Your task to perform on an android device: What's the weather? Image 0: 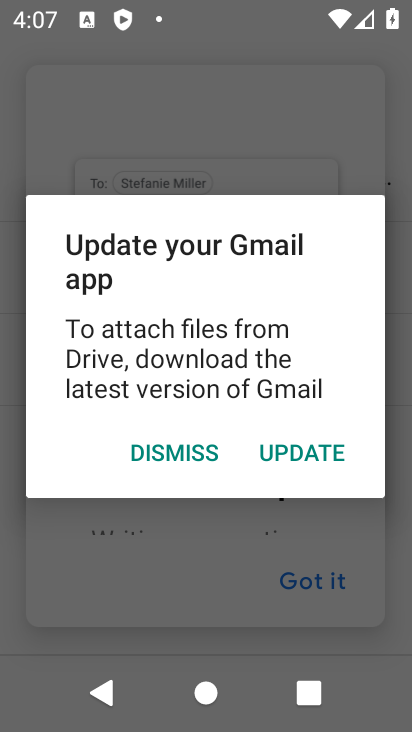
Step 0: press home button
Your task to perform on an android device: What's the weather? Image 1: 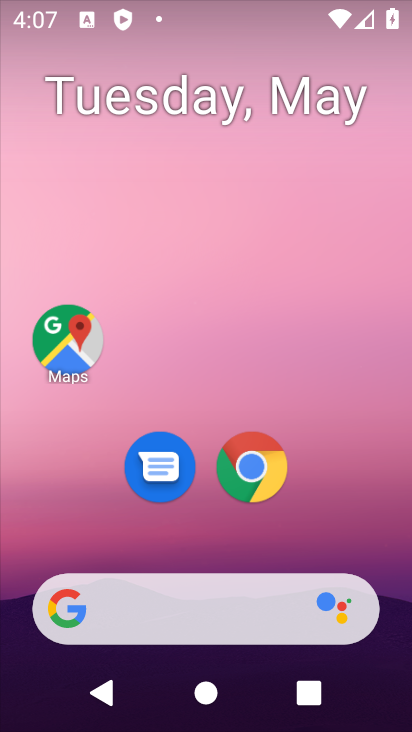
Step 1: click (227, 616)
Your task to perform on an android device: What's the weather? Image 2: 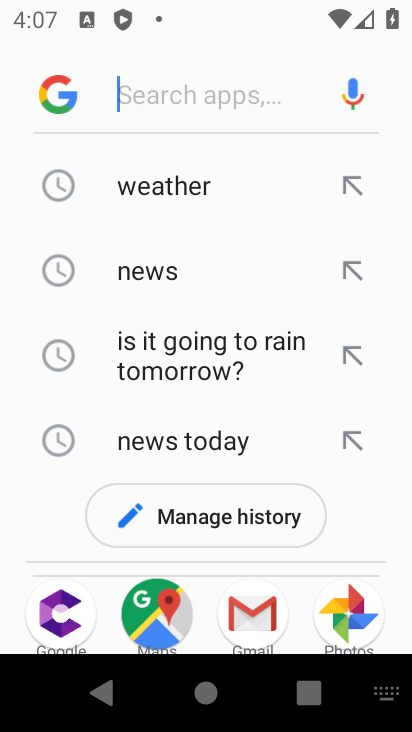
Step 2: click (132, 188)
Your task to perform on an android device: What's the weather? Image 3: 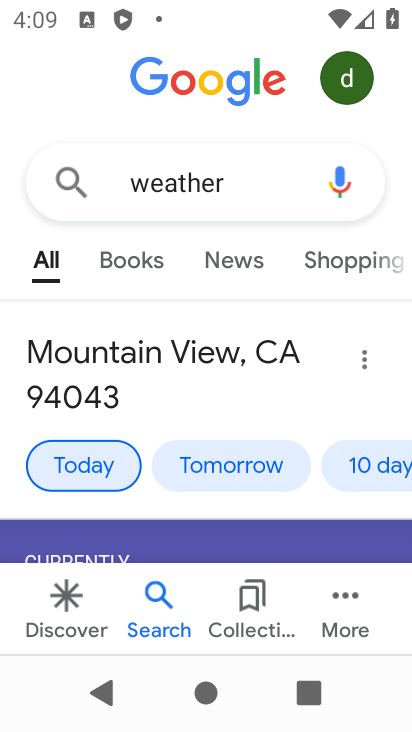
Step 3: task complete